Your task to perform on an android device: Open the phone app and click the voicemail tab. Image 0: 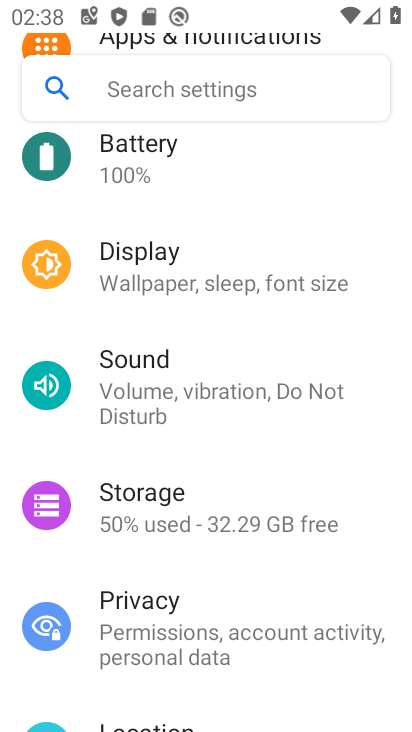
Step 0: press back button
Your task to perform on an android device: Open the phone app and click the voicemail tab. Image 1: 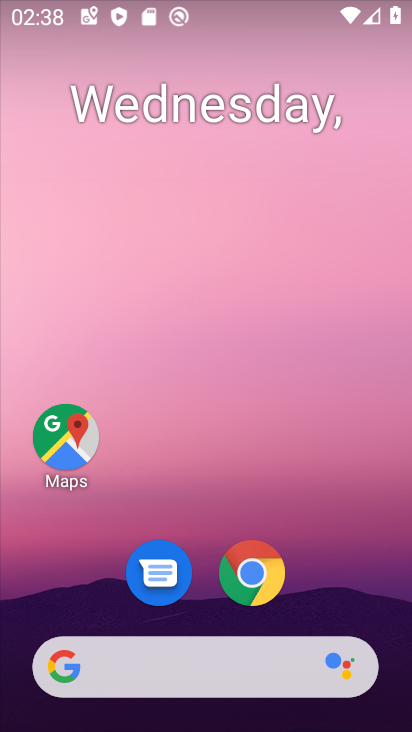
Step 1: drag from (332, 573) to (238, 74)
Your task to perform on an android device: Open the phone app and click the voicemail tab. Image 2: 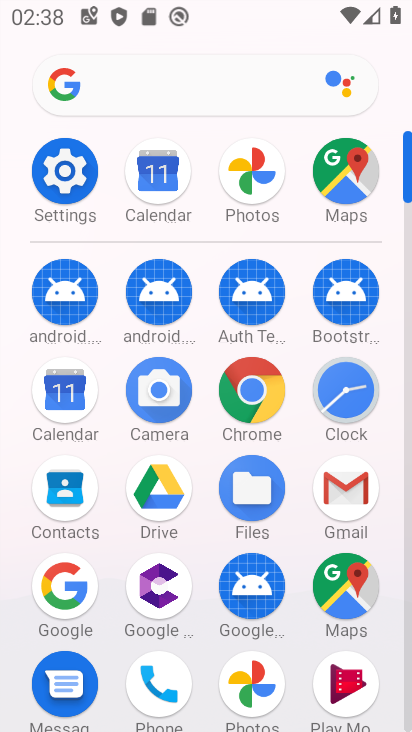
Step 2: drag from (204, 613) to (193, 415)
Your task to perform on an android device: Open the phone app and click the voicemail tab. Image 3: 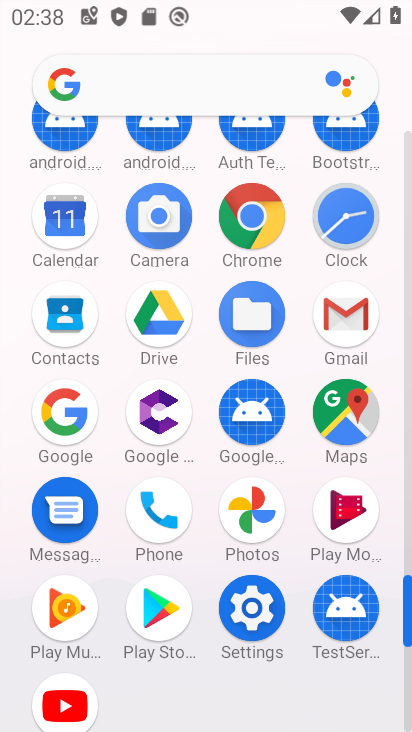
Step 3: click (155, 512)
Your task to perform on an android device: Open the phone app and click the voicemail tab. Image 4: 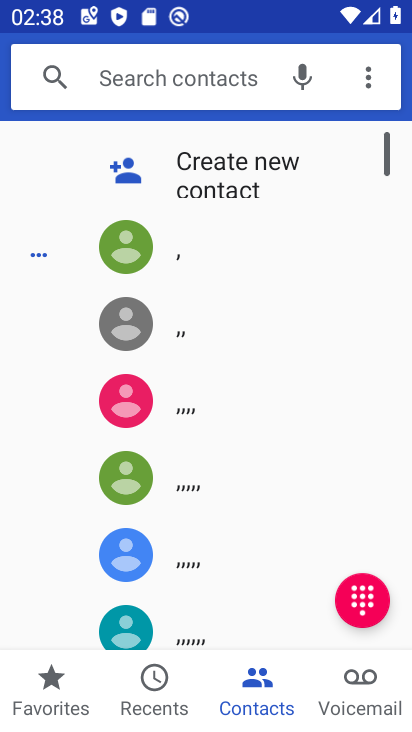
Step 4: click (355, 677)
Your task to perform on an android device: Open the phone app and click the voicemail tab. Image 5: 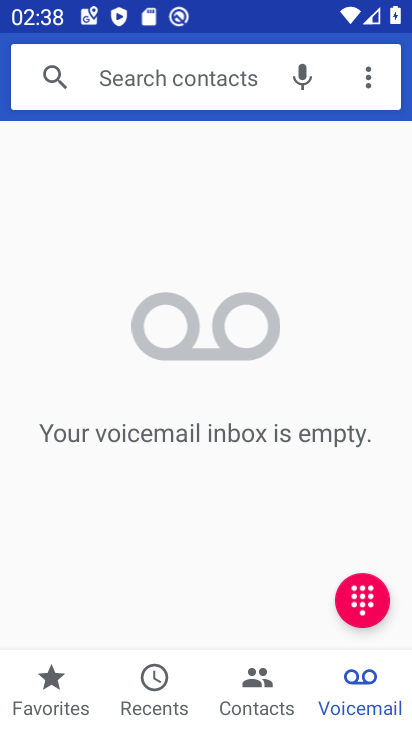
Step 5: task complete